Your task to perform on an android device: see sites visited before in the chrome app Image 0: 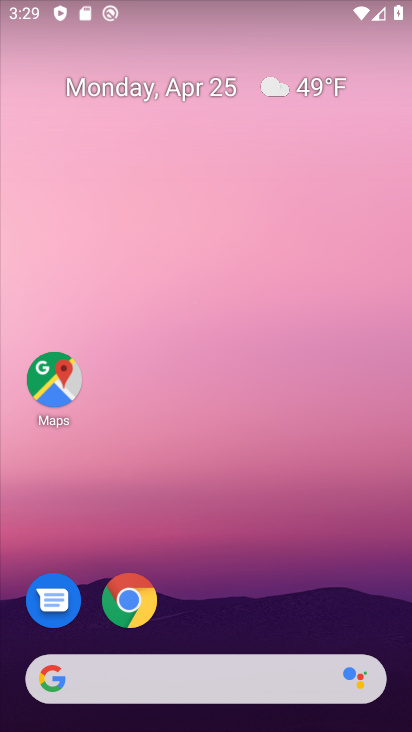
Step 0: click (135, 593)
Your task to perform on an android device: see sites visited before in the chrome app Image 1: 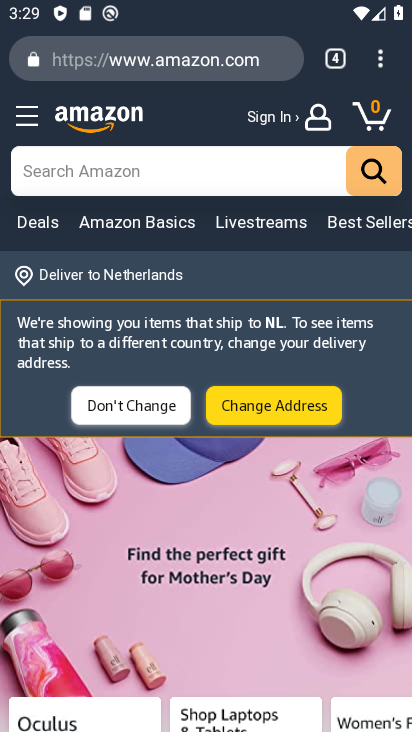
Step 1: click (379, 56)
Your task to perform on an android device: see sites visited before in the chrome app Image 2: 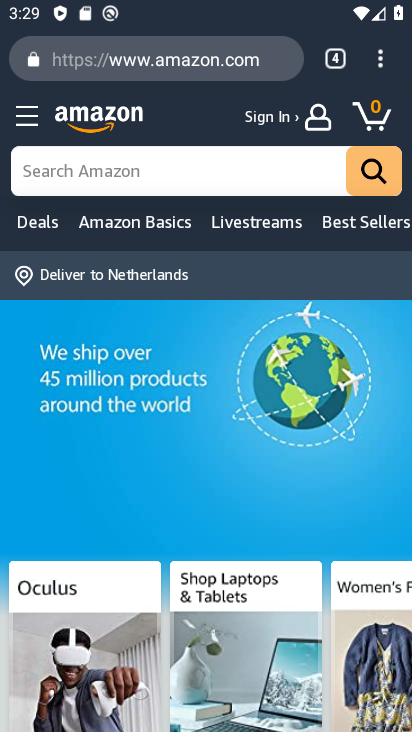
Step 2: task complete